Your task to perform on an android device: Open accessibility settings Image 0: 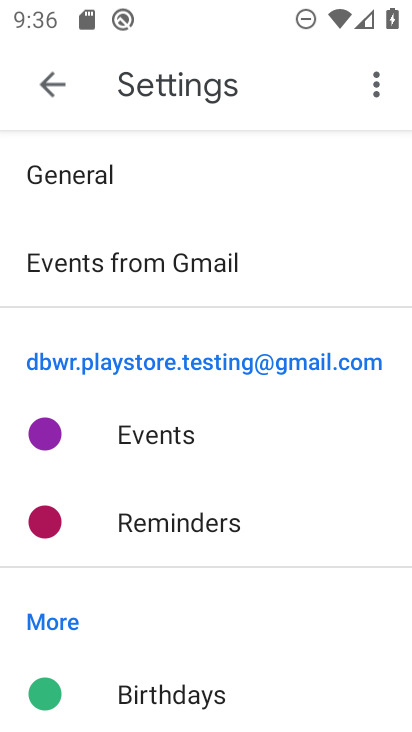
Step 0: press home button
Your task to perform on an android device: Open accessibility settings Image 1: 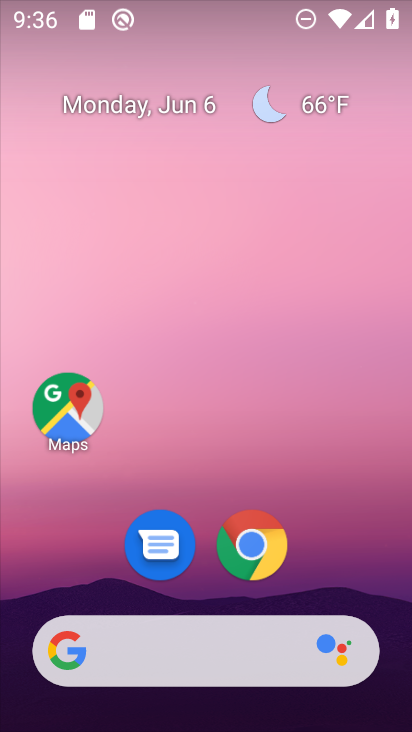
Step 1: drag from (209, 572) to (283, 255)
Your task to perform on an android device: Open accessibility settings Image 2: 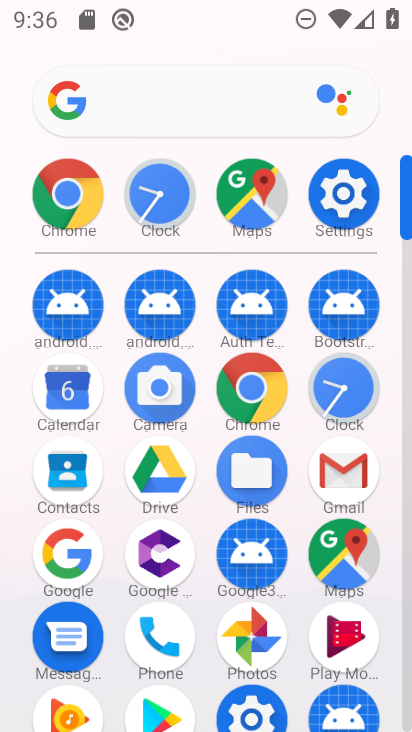
Step 2: click (344, 198)
Your task to perform on an android device: Open accessibility settings Image 3: 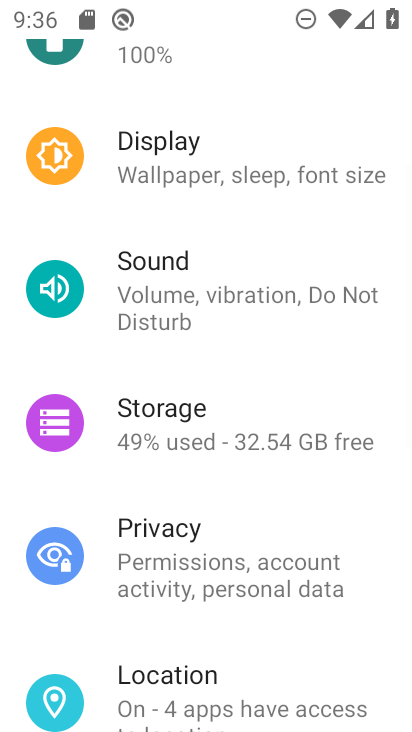
Step 3: drag from (199, 622) to (234, 257)
Your task to perform on an android device: Open accessibility settings Image 4: 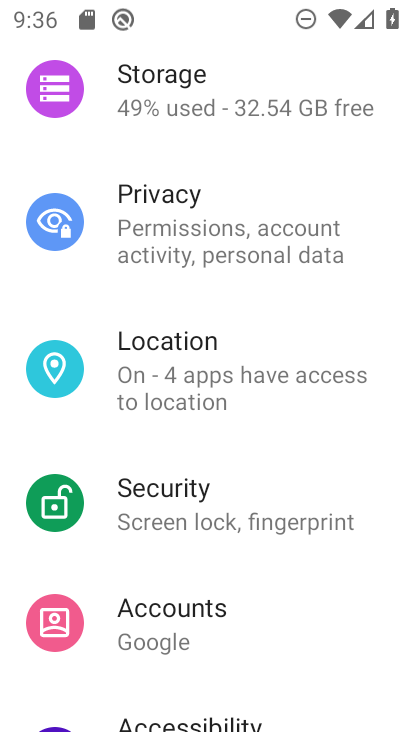
Step 4: drag from (205, 577) to (255, 221)
Your task to perform on an android device: Open accessibility settings Image 5: 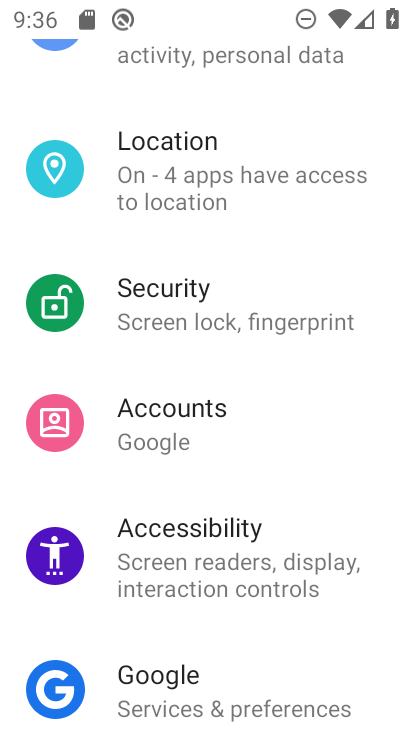
Step 5: click (203, 561)
Your task to perform on an android device: Open accessibility settings Image 6: 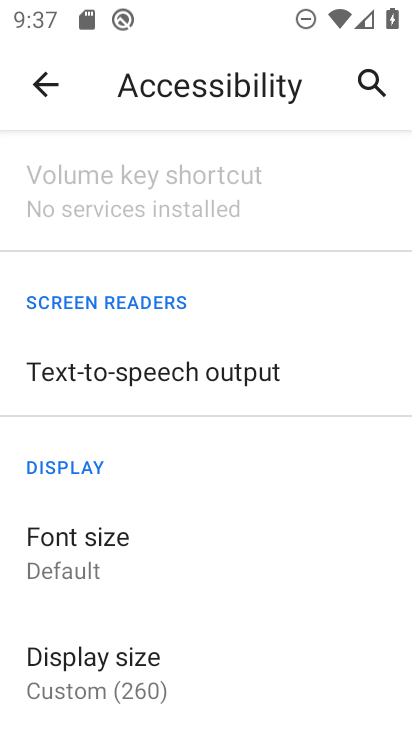
Step 6: task complete